Your task to perform on an android device: open sync settings in chrome Image 0: 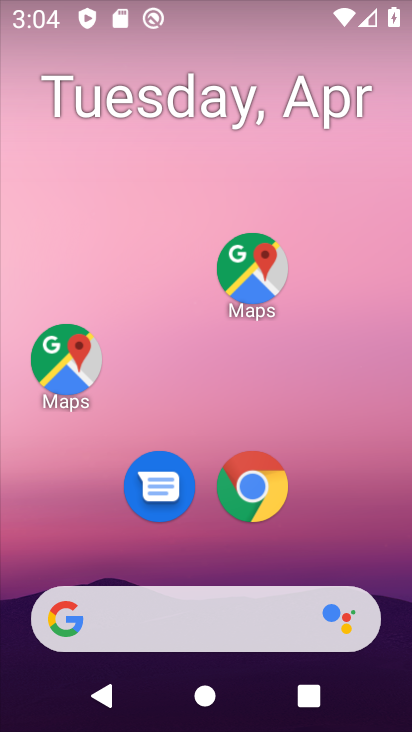
Step 0: click (279, 509)
Your task to perform on an android device: open sync settings in chrome Image 1: 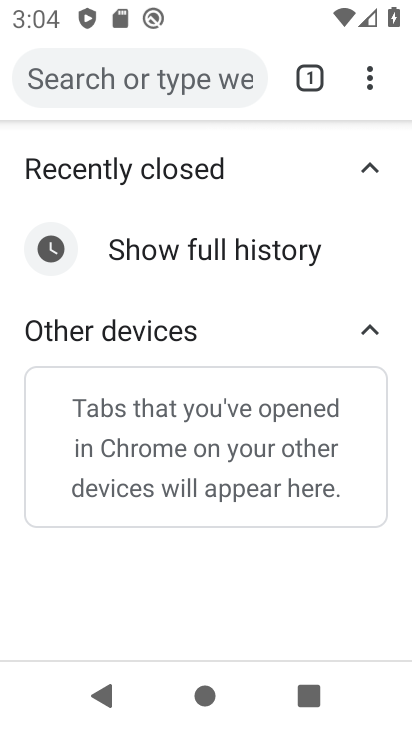
Step 1: click (378, 89)
Your task to perform on an android device: open sync settings in chrome Image 2: 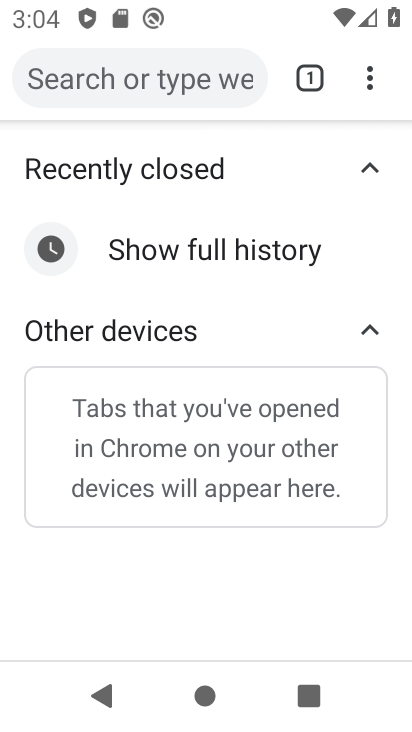
Step 2: click (372, 94)
Your task to perform on an android device: open sync settings in chrome Image 3: 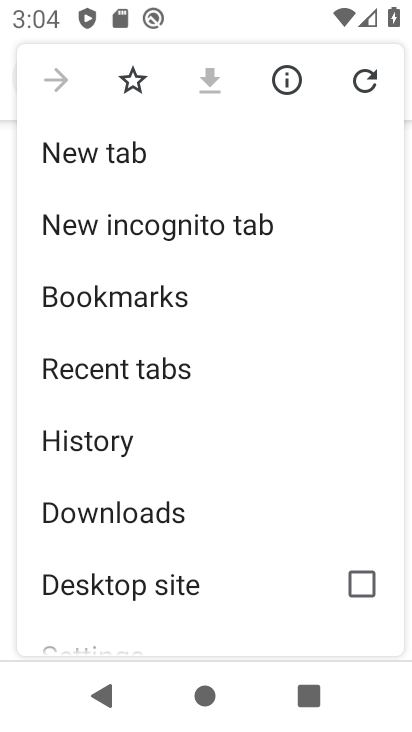
Step 3: drag from (185, 478) to (239, 206)
Your task to perform on an android device: open sync settings in chrome Image 4: 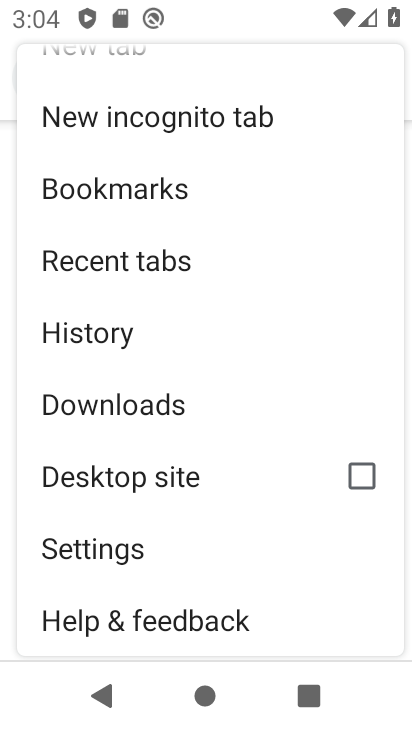
Step 4: click (143, 565)
Your task to perform on an android device: open sync settings in chrome Image 5: 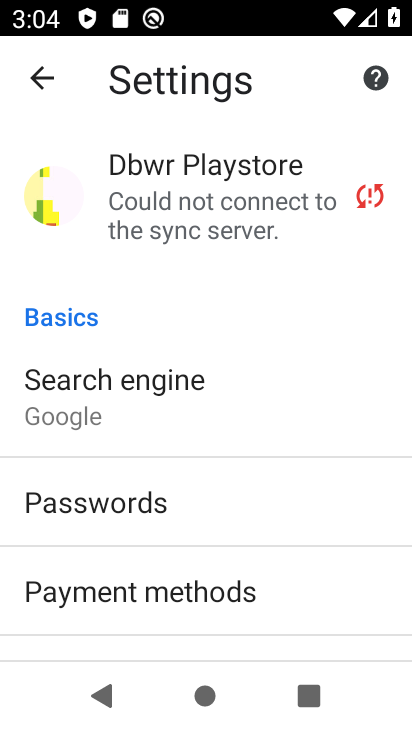
Step 5: click (258, 225)
Your task to perform on an android device: open sync settings in chrome Image 6: 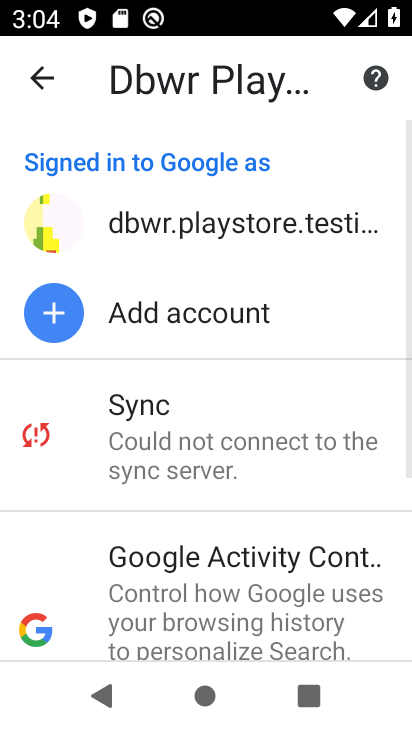
Step 6: click (169, 435)
Your task to perform on an android device: open sync settings in chrome Image 7: 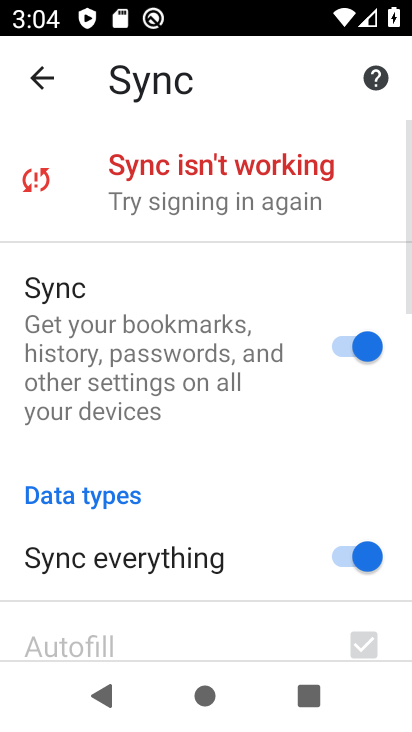
Step 7: click (317, 175)
Your task to perform on an android device: open sync settings in chrome Image 8: 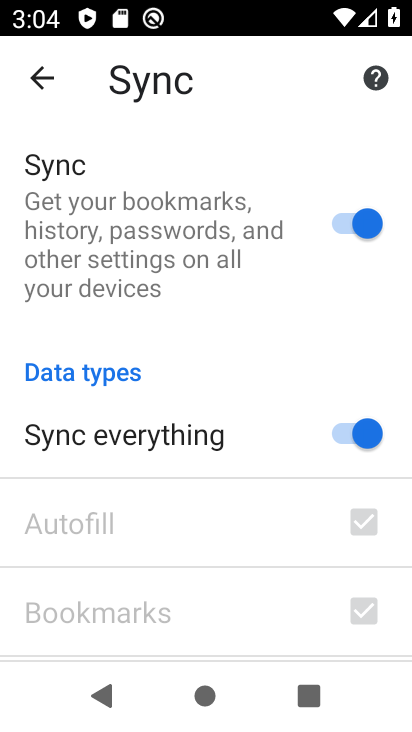
Step 8: task complete